Your task to perform on an android device: uninstall "Walmart Shopping & Grocery" Image 0: 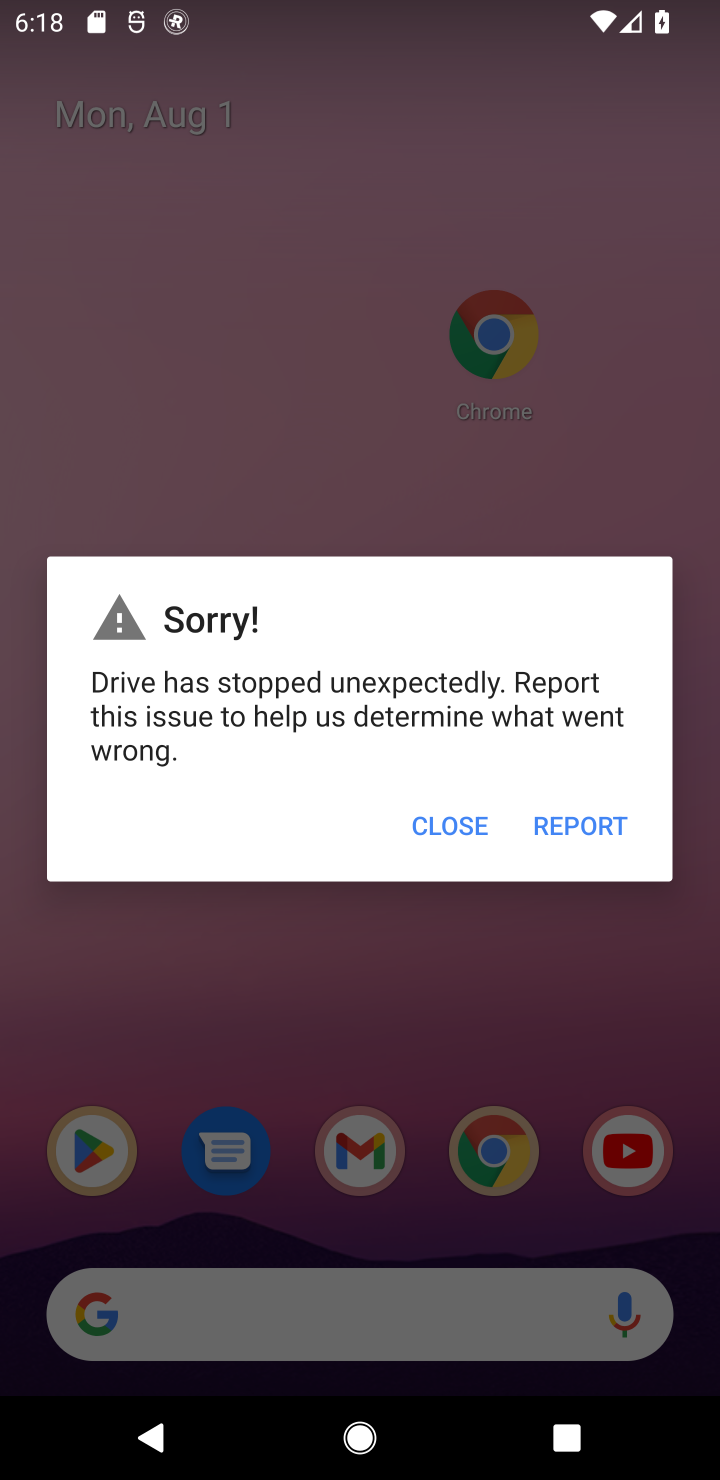
Step 0: press home button
Your task to perform on an android device: uninstall "Walmart Shopping & Grocery" Image 1: 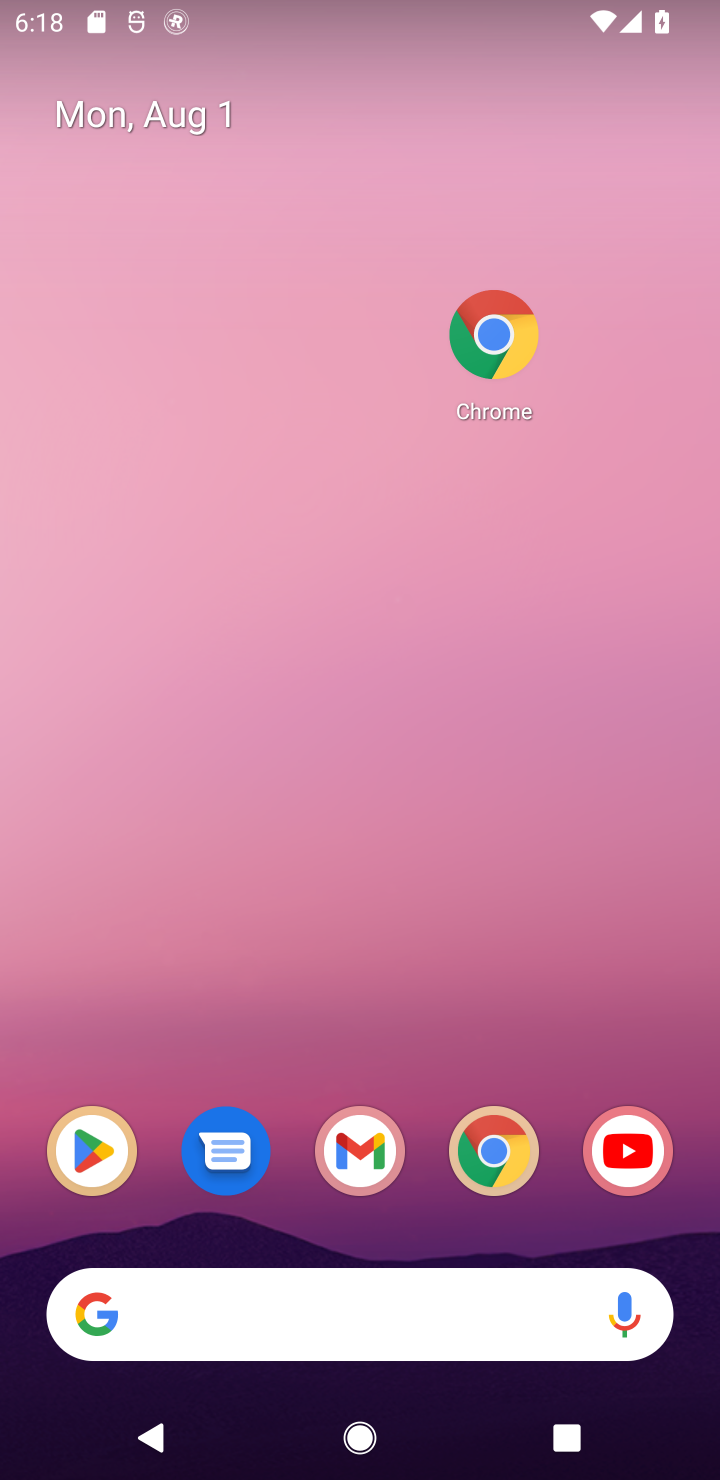
Step 1: click (81, 1150)
Your task to perform on an android device: uninstall "Walmart Shopping & Grocery" Image 2: 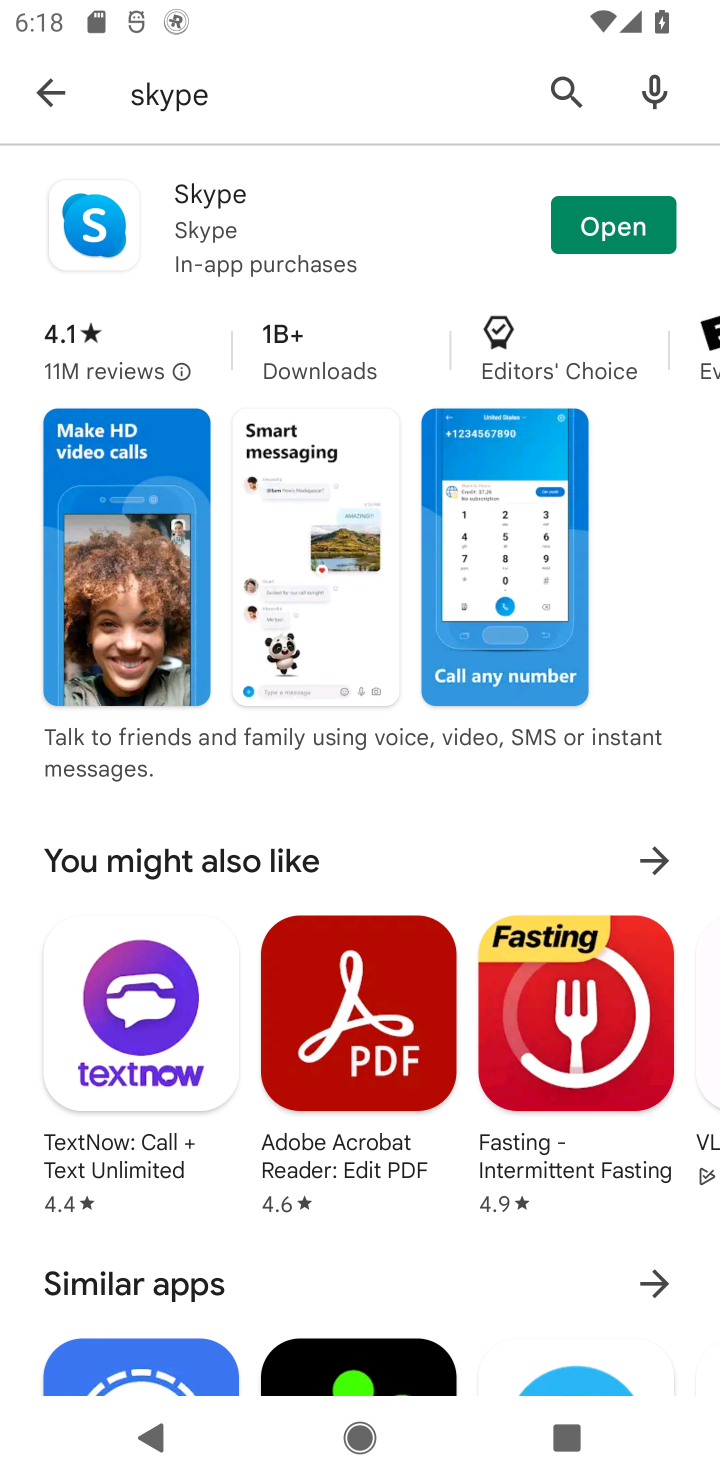
Step 2: click (546, 89)
Your task to perform on an android device: uninstall "Walmart Shopping & Grocery" Image 3: 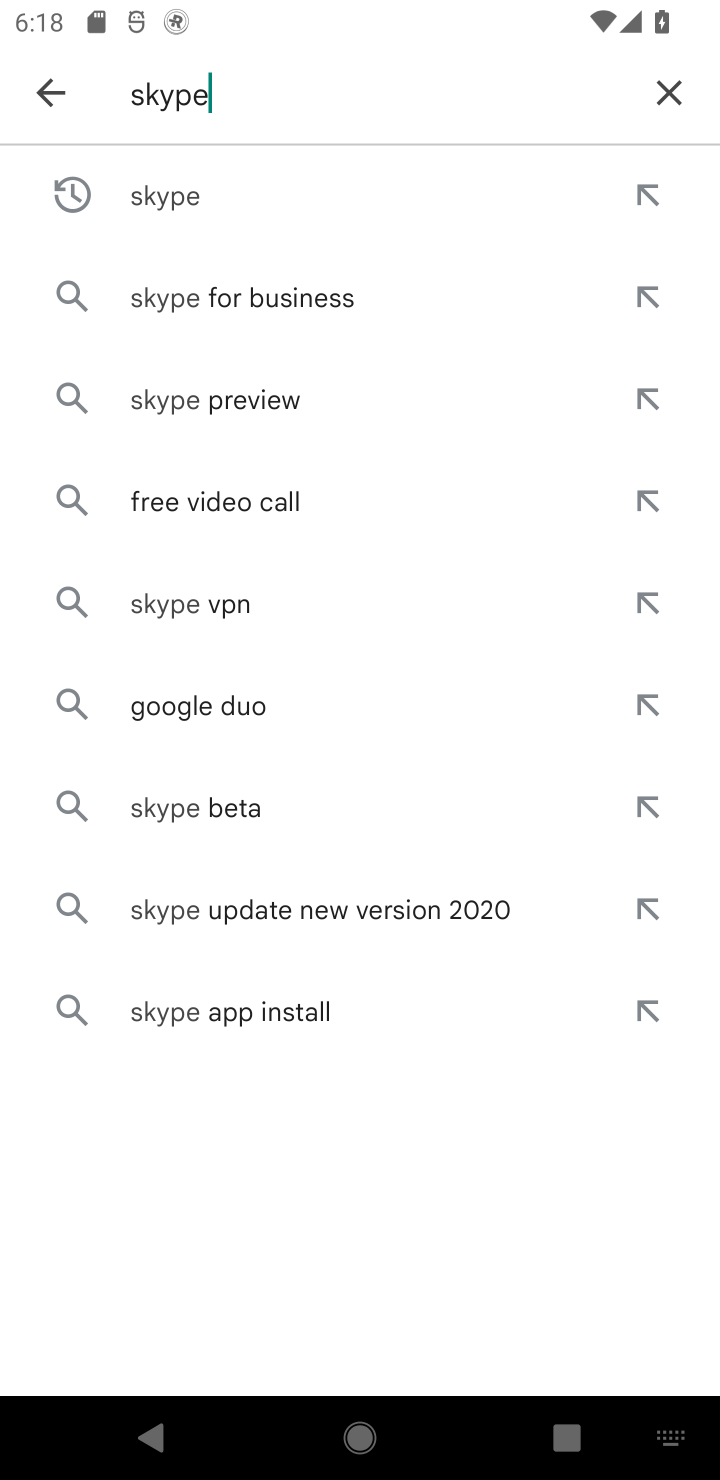
Step 3: click (666, 93)
Your task to perform on an android device: uninstall "Walmart Shopping & Grocery" Image 4: 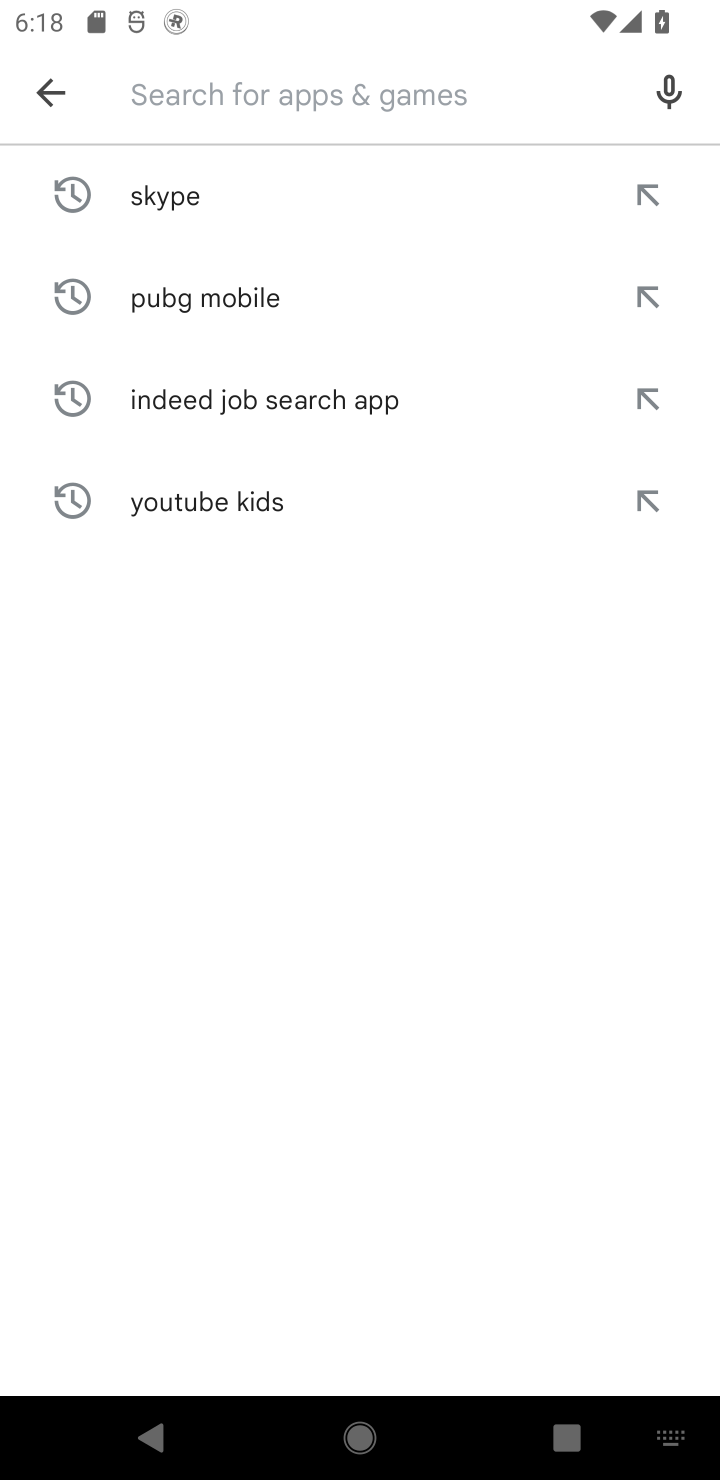
Step 4: type "Walmart Shopping & Grocery"
Your task to perform on an android device: uninstall "Walmart Shopping & Grocery" Image 5: 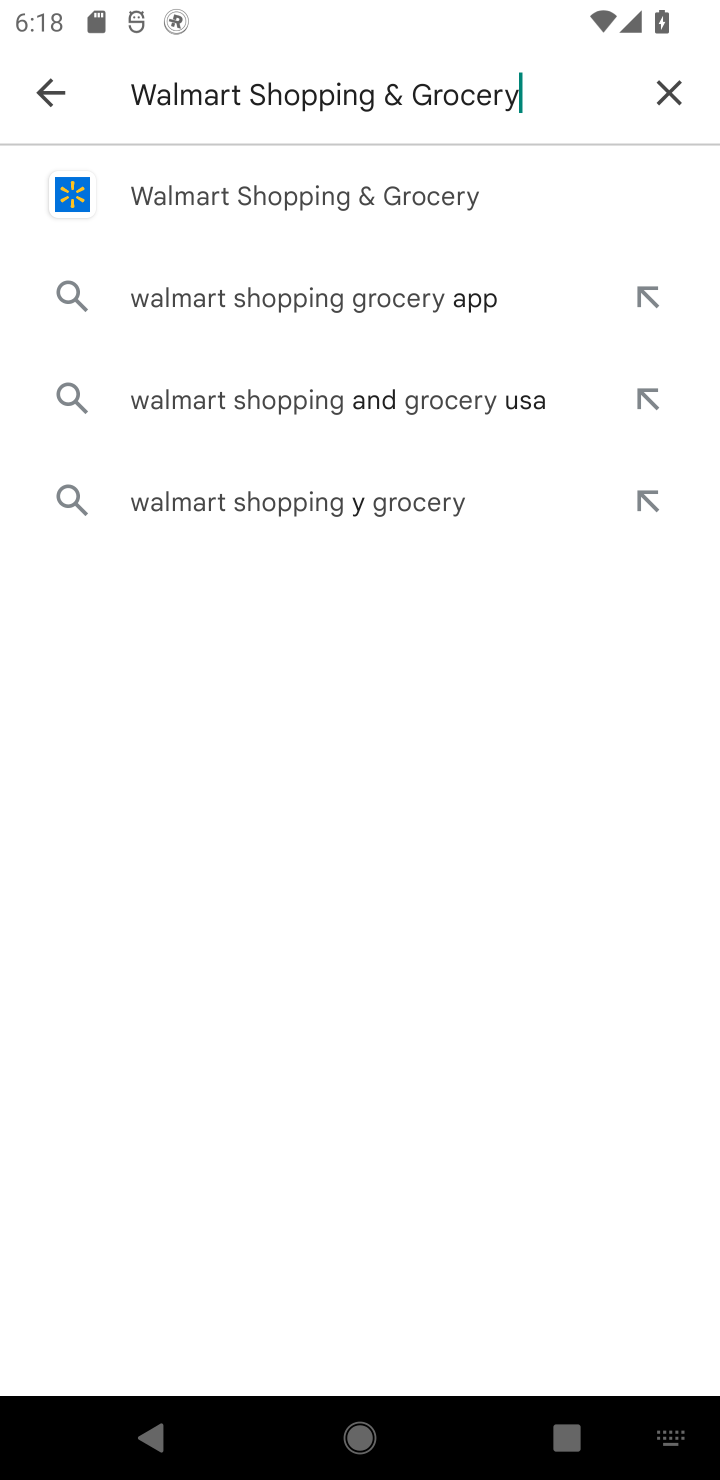
Step 5: click (187, 205)
Your task to perform on an android device: uninstall "Walmart Shopping & Grocery" Image 6: 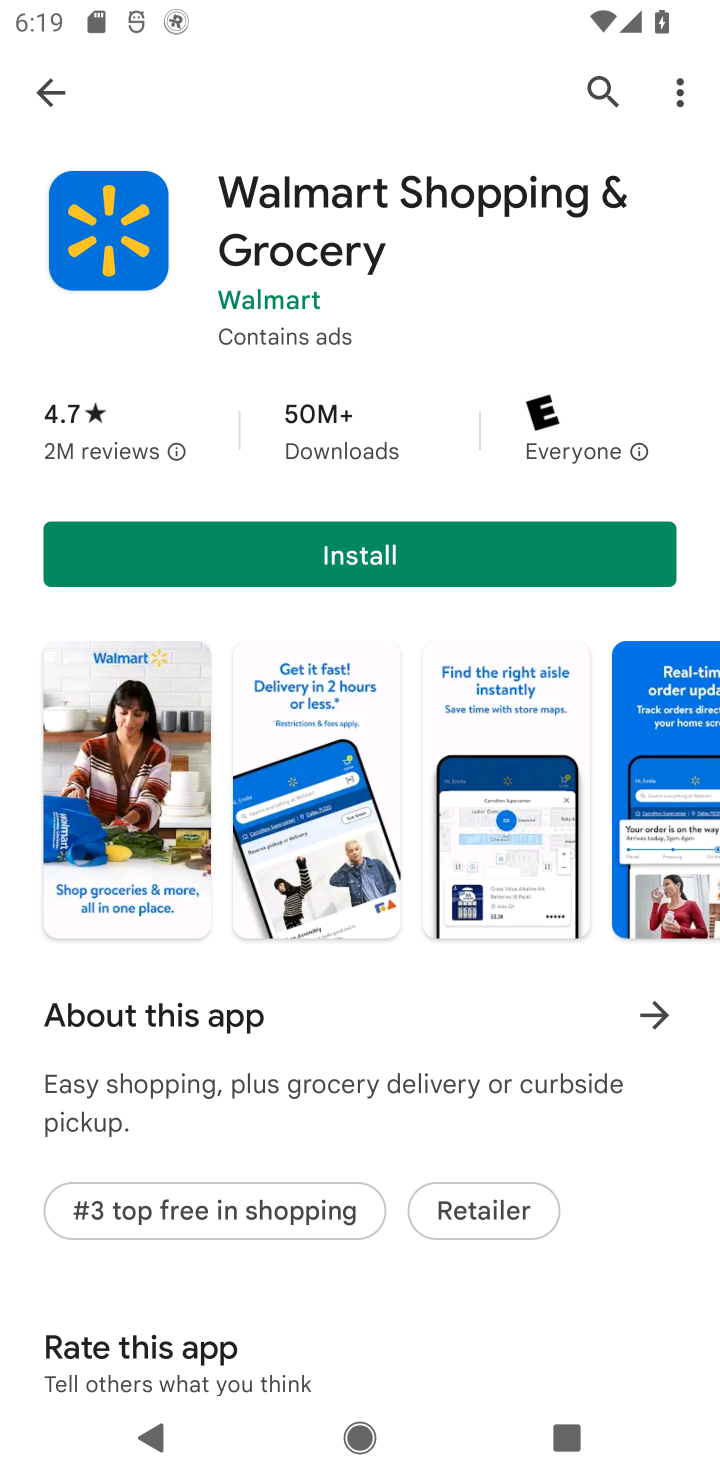
Step 6: task complete